Your task to perform on an android device: turn off sleep mode Image 0: 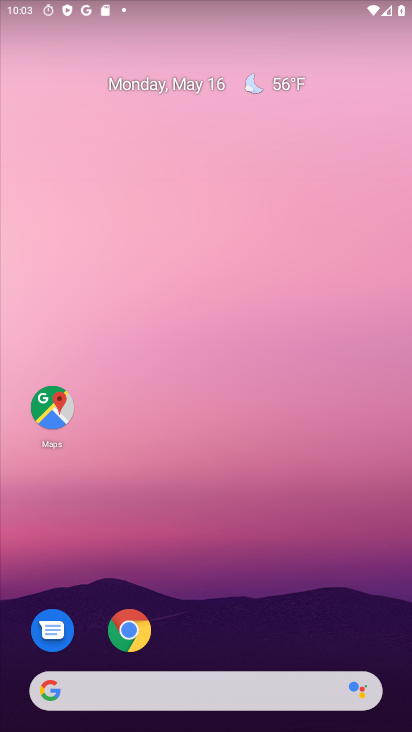
Step 0: drag from (200, 647) to (272, 23)
Your task to perform on an android device: turn off sleep mode Image 1: 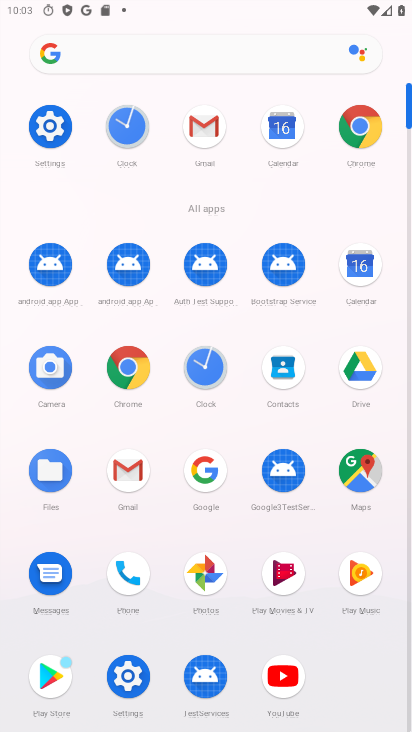
Step 1: click (67, 133)
Your task to perform on an android device: turn off sleep mode Image 2: 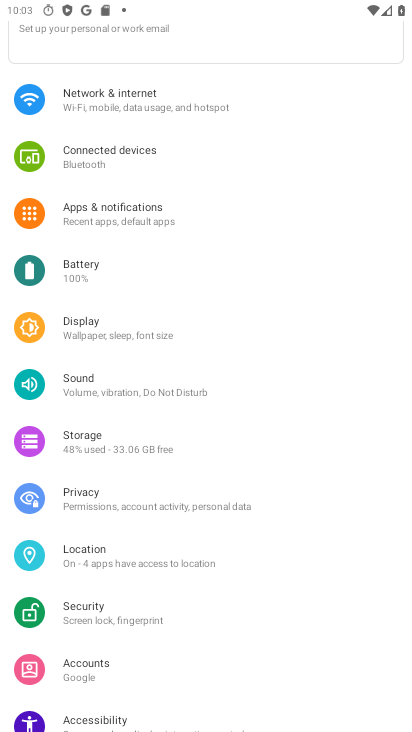
Step 2: drag from (175, 84) to (198, 510)
Your task to perform on an android device: turn off sleep mode Image 3: 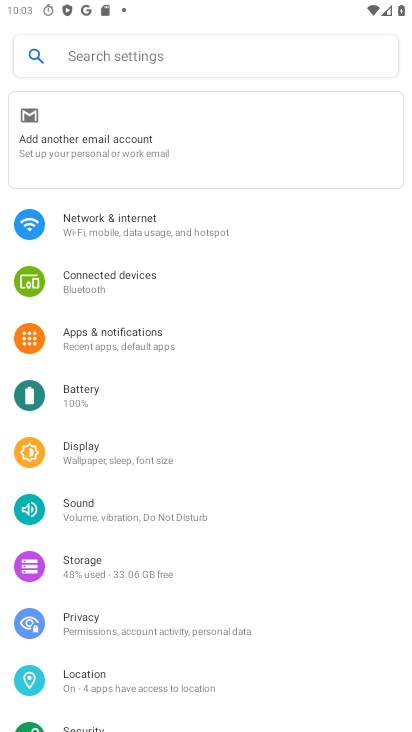
Step 3: click (217, 53)
Your task to perform on an android device: turn off sleep mode Image 4: 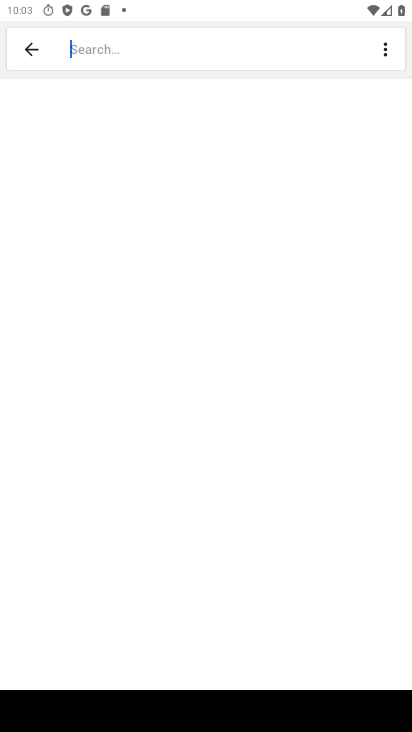
Step 4: type "sleep mode"
Your task to perform on an android device: turn off sleep mode Image 5: 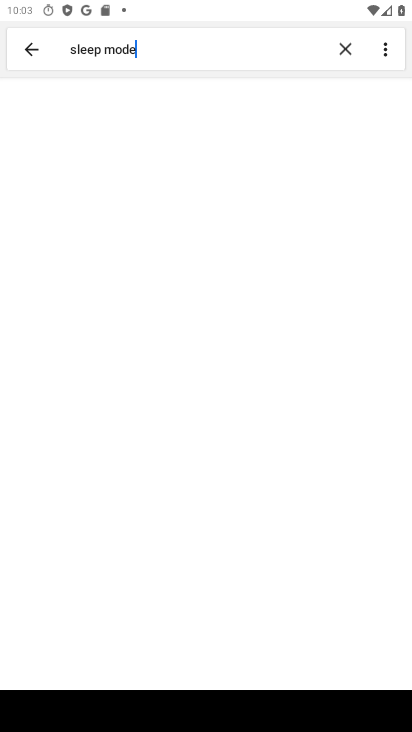
Step 5: task complete